Your task to perform on an android device: turn off javascript in the chrome app Image 0: 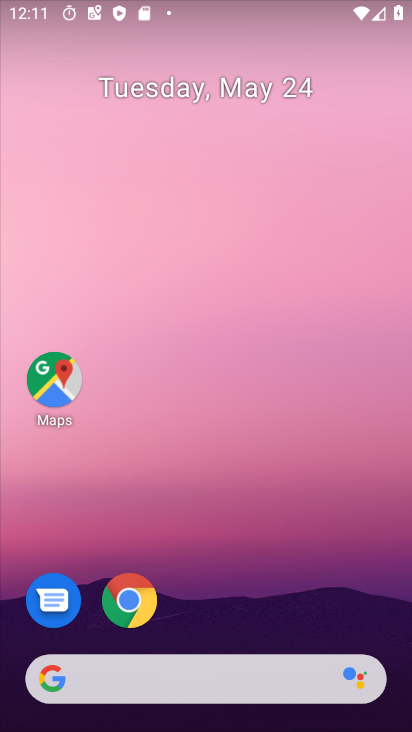
Step 0: click (114, 604)
Your task to perform on an android device: turn off javascript in the chrome app Image 1: 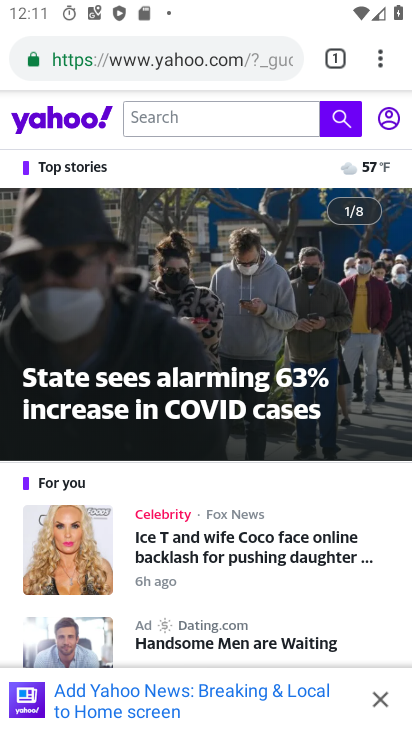
Step 1: click (379, 54)
Your task to perform on an android device: turn off javascript in the chrome app Image 2: 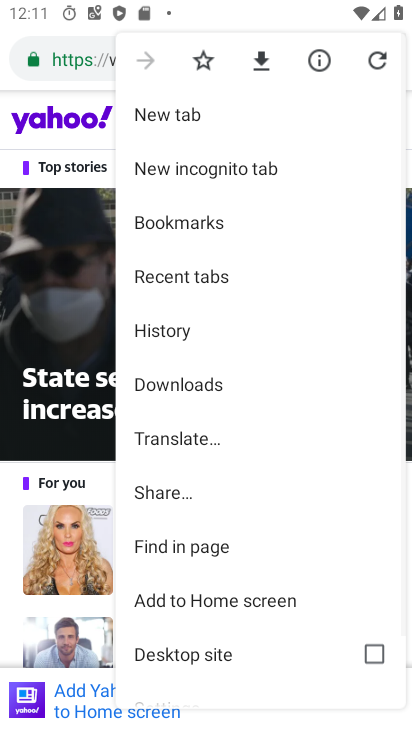
Step 2: drag from (202, 559) to (246, 116)
Your task to perform on an android device: turn off javascript in the chrome app Image 3: 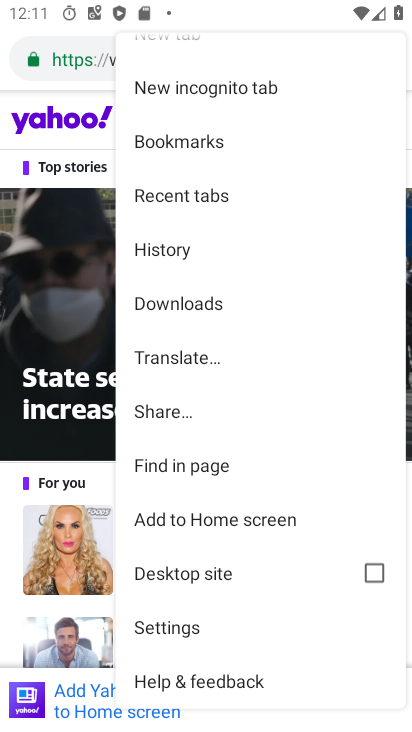
Step 3: click (173, 635)
Your task to perform on an android device: turn off javascript in the chrome app Image 4: 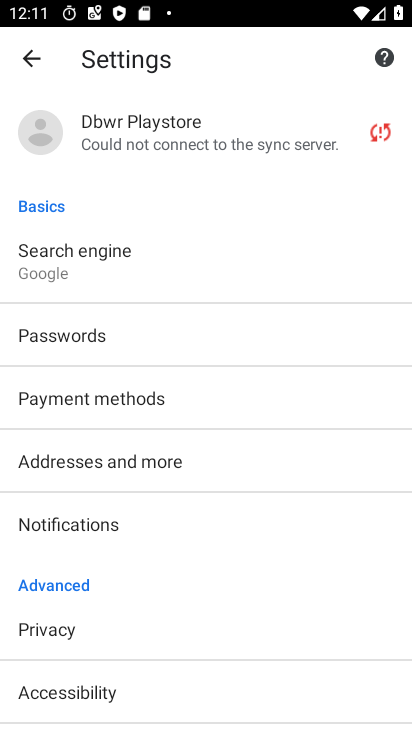
Step 4: drag from (123, 343) to (188, 69)
Your task to perform on an android device: turn off javascript in the chrome app Image 5: 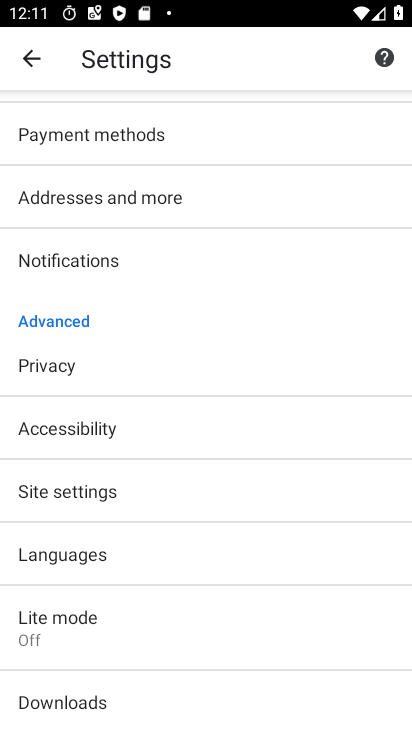
Step 5: click (70, 495)
Your task to perform on an android device: turn off javascript in the chrome app Image 6: 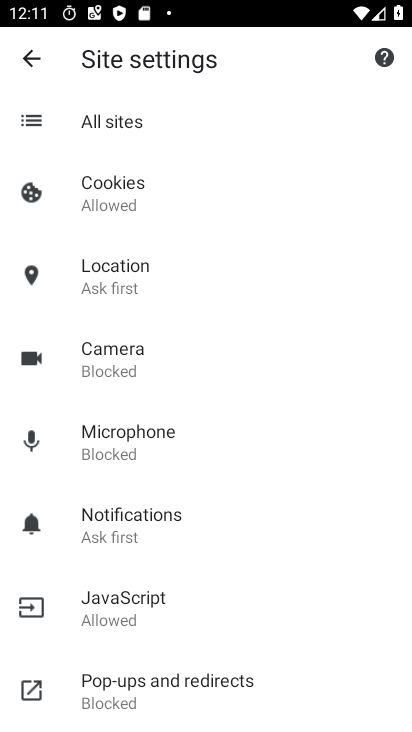
Step 6: click (118, 607)
Your task to perform on an android device: turn off javascript in the chrome app Image 7: 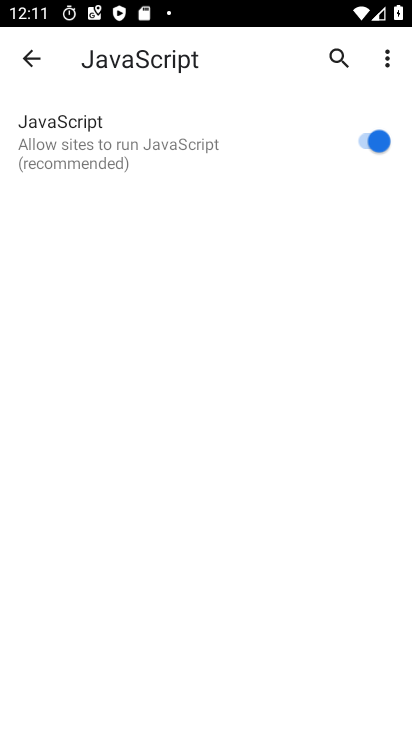
Step 7: click (373, 138)
Your task to perform on an android device: turn off javascript in the chrome app Image 8: 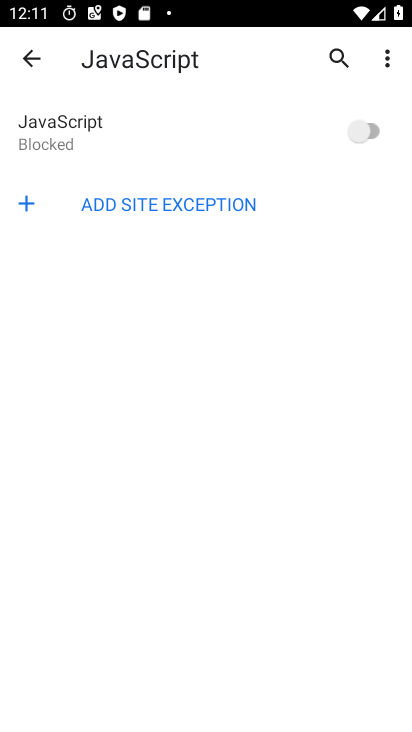
Step 8: task complete